Your task to perform on an android device: Turn off the flashlight Image 0: 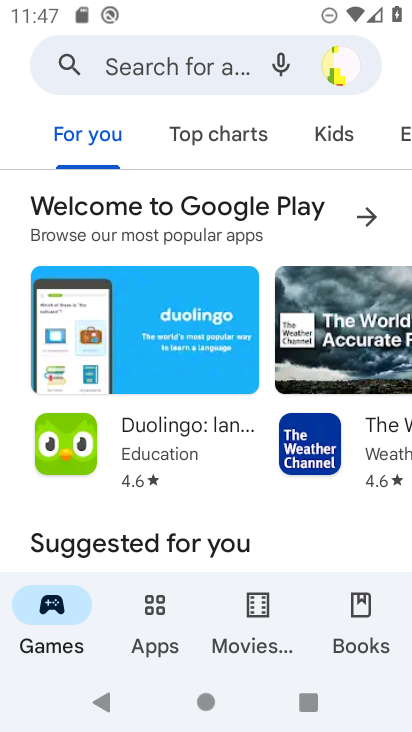
Step 0: press home button
Your task to perform on an android device: Turn off the flashlight Image 1: 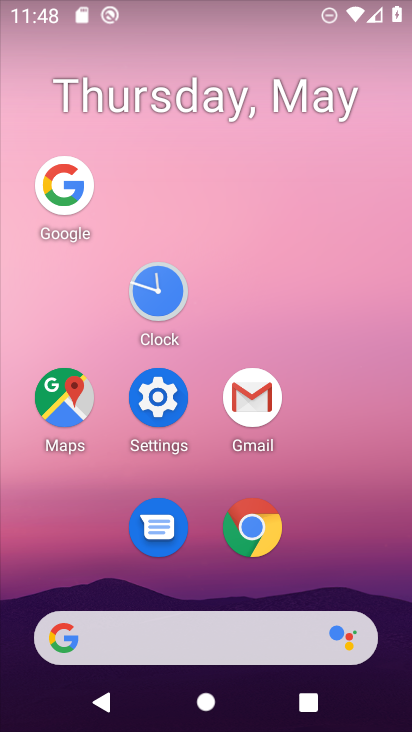
Step 1: click (162, 422)
Your task to perform on an android device: Turn off the flashlight Image 2: 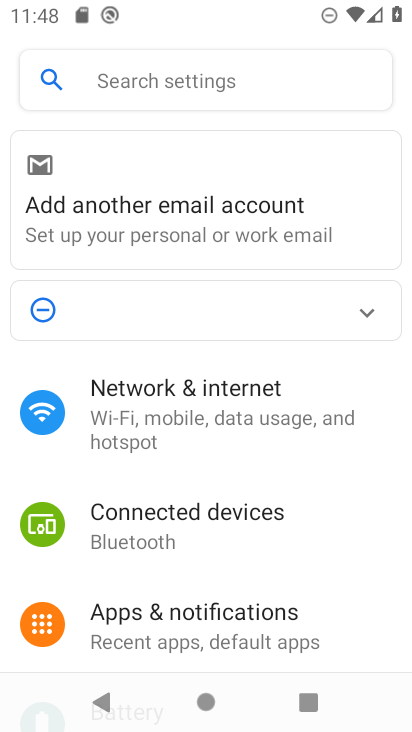
Step 2: click (174, 533)
Your task to perform on an android device: Turn off the flashlight Image 3: 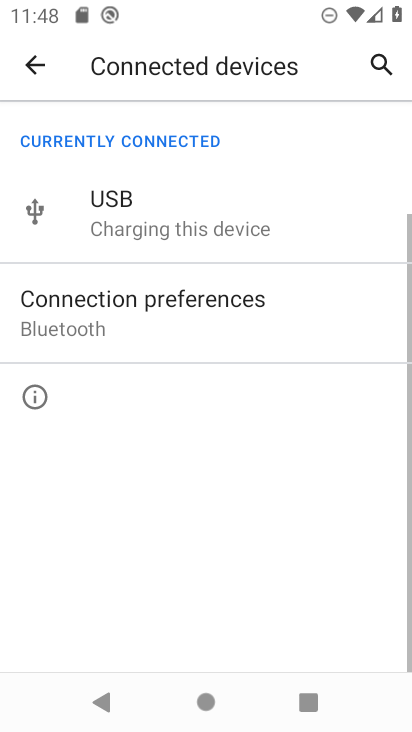
Step 3: task complete